Your task to perform on an android device: Open wifi settings Image 0: 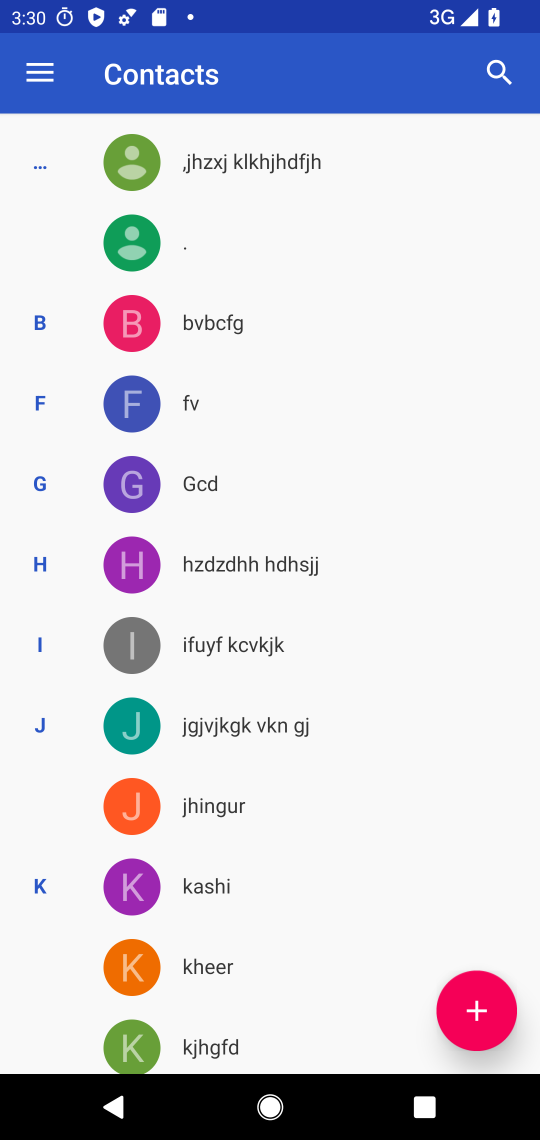
Step 0: press home button
Your task to perform on an android device: Open wifi settings Image 1: 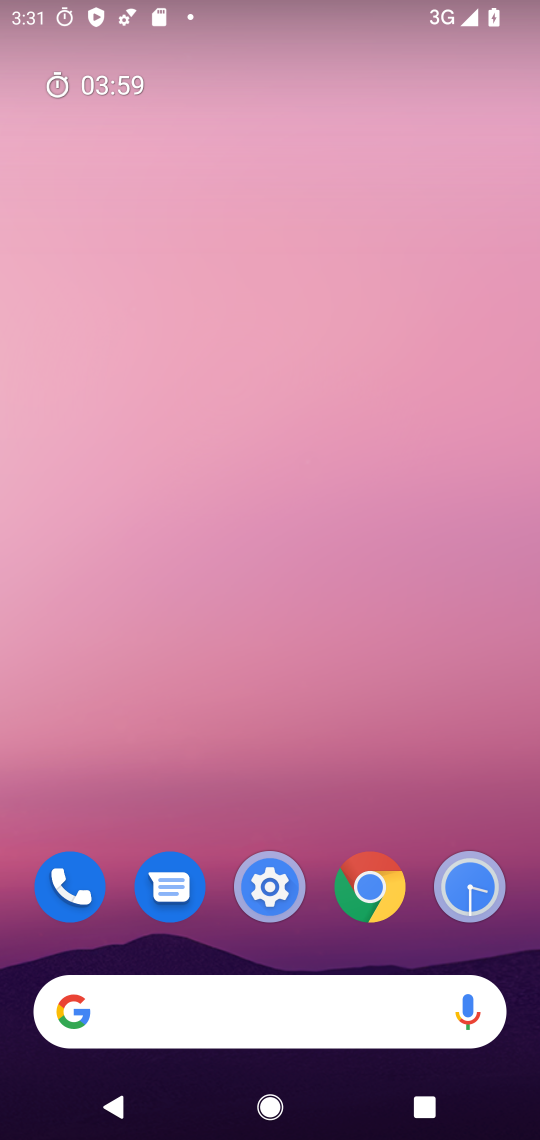
Step 1: drag from (397, 650) to (412, 197)
Your task to perform on an android device: Open wifi settings Image 2: 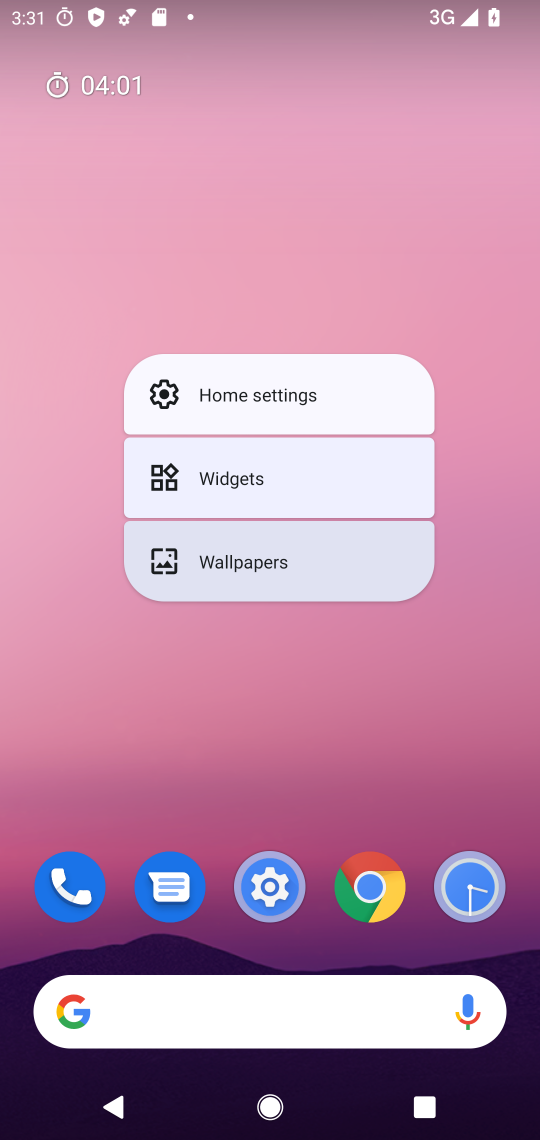
Step 2: click (417, 740)
Your task to perform on an android device: Open wifi settings Image 3: 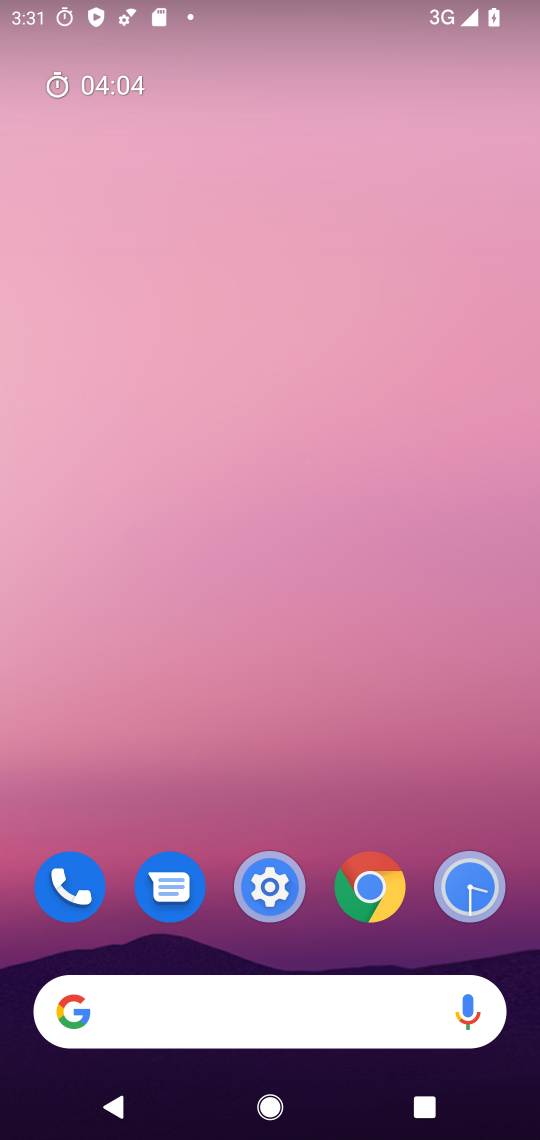
Step 3: drag from (413, 693) to (451, 159)
Your task to perform on an android device: Open wifi settings Image 4: 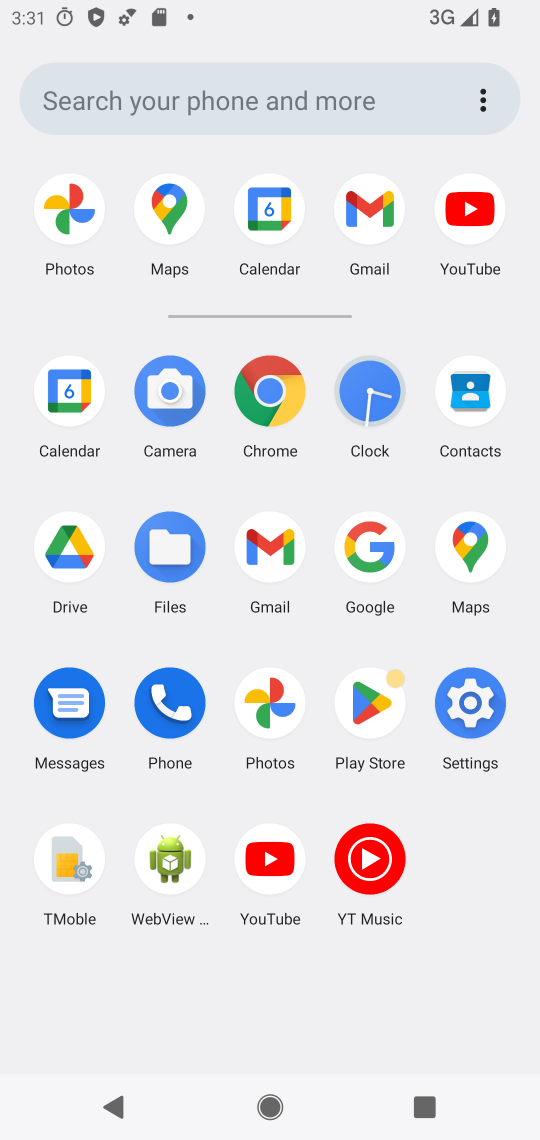
Step 4: click (470, 697)
Your task to perform on an android device: Open wifi settings Image 5: 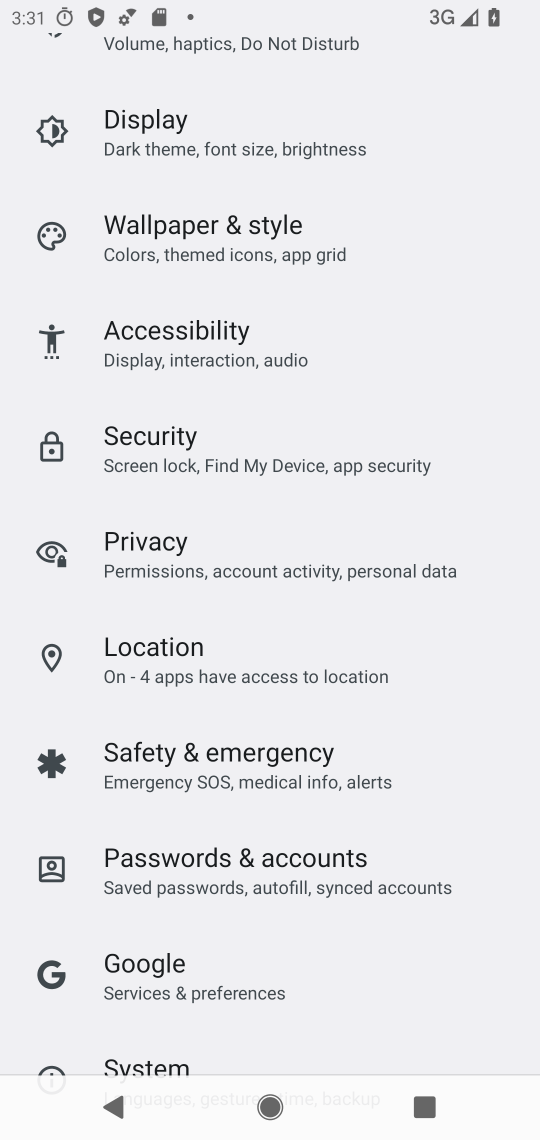
Step 5: drag from (459, 446) to (475, 667)
Your task to perform on an android device: Open wifi settings Image 6: 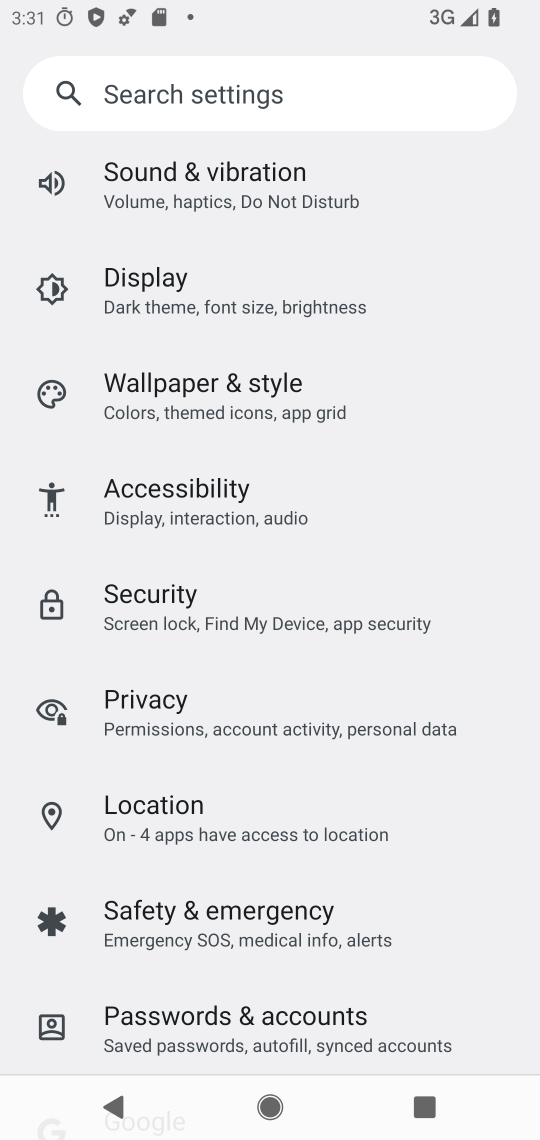
Step 6: drag from (453, 357) to (478, 656)
Your task to perform on an android device: Open wifi settings Image 7: 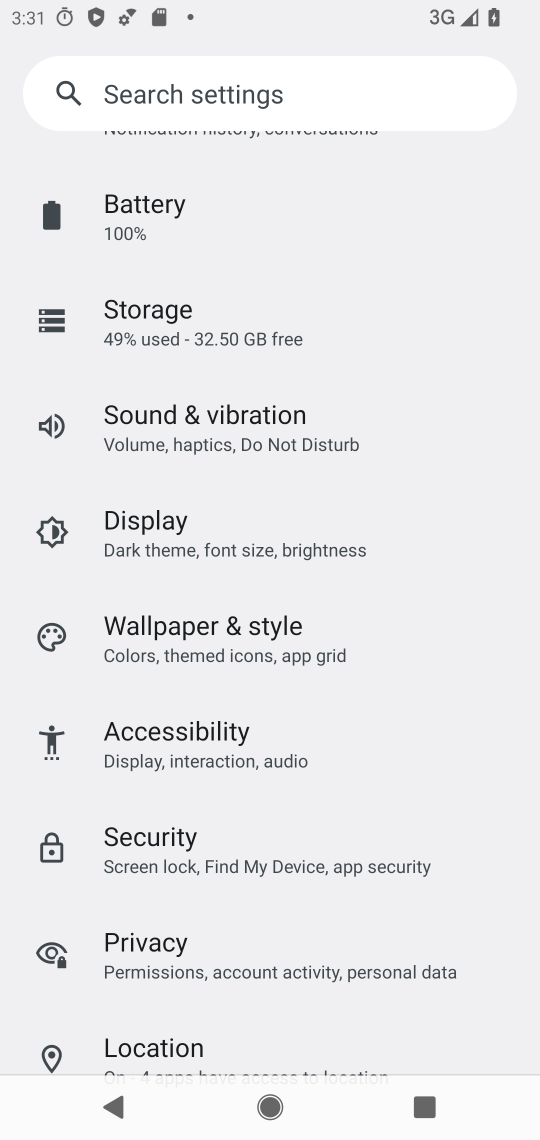
Step 7: drag from (473, 327) to (459, 648)
Your task to perform on an android device: Open wifi settings Image 8: 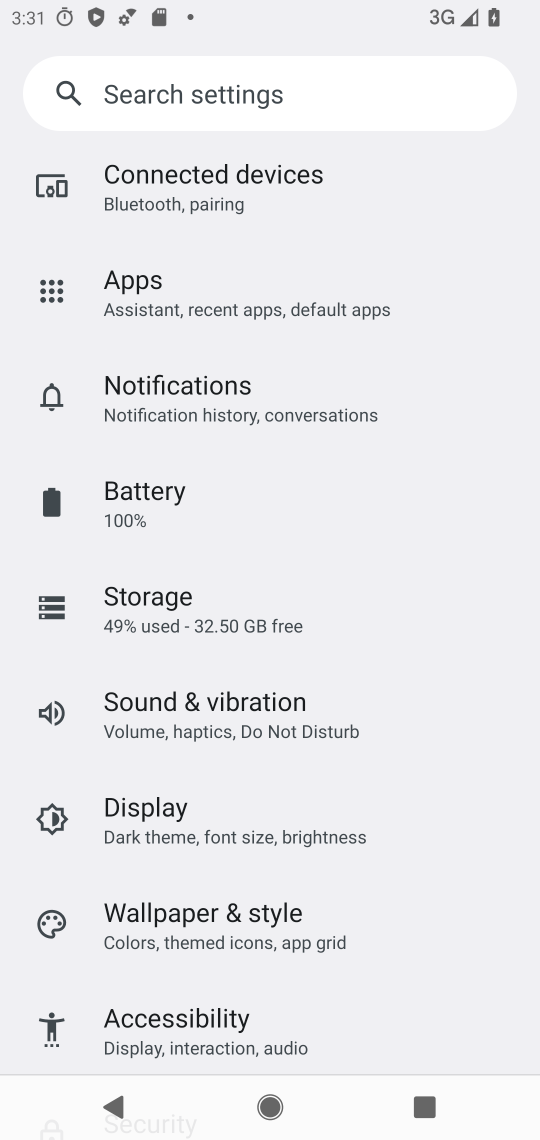
Step 8: drag from (449, 479) to (452, 717)
Your task to perform on an android device: Open wifi settings Image 9: 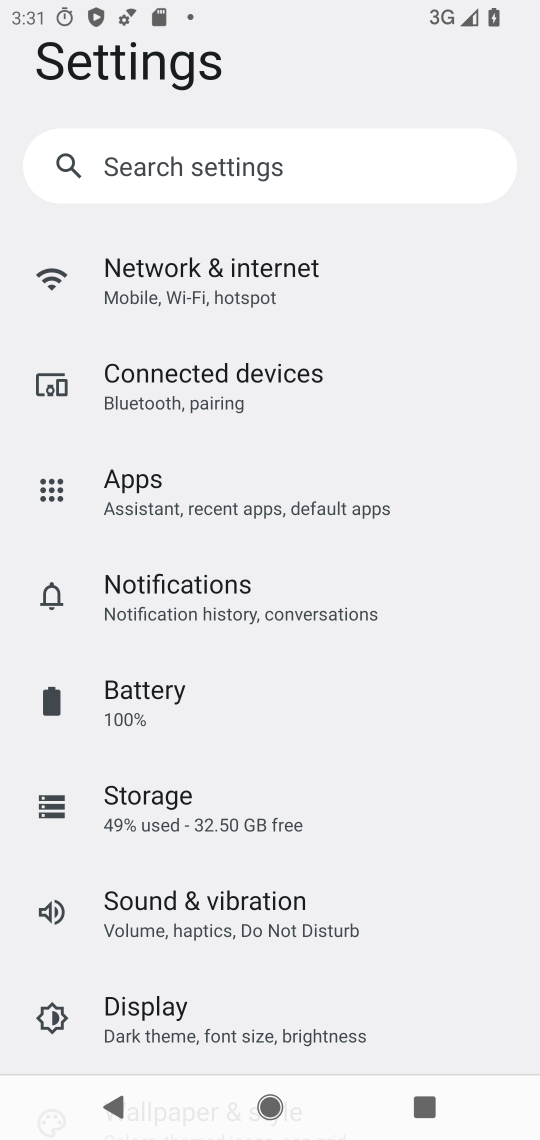
Step 9: drag from (431, 313) to (442, 704)
Your task to perform on an android device: Open wifi settings Image 10: 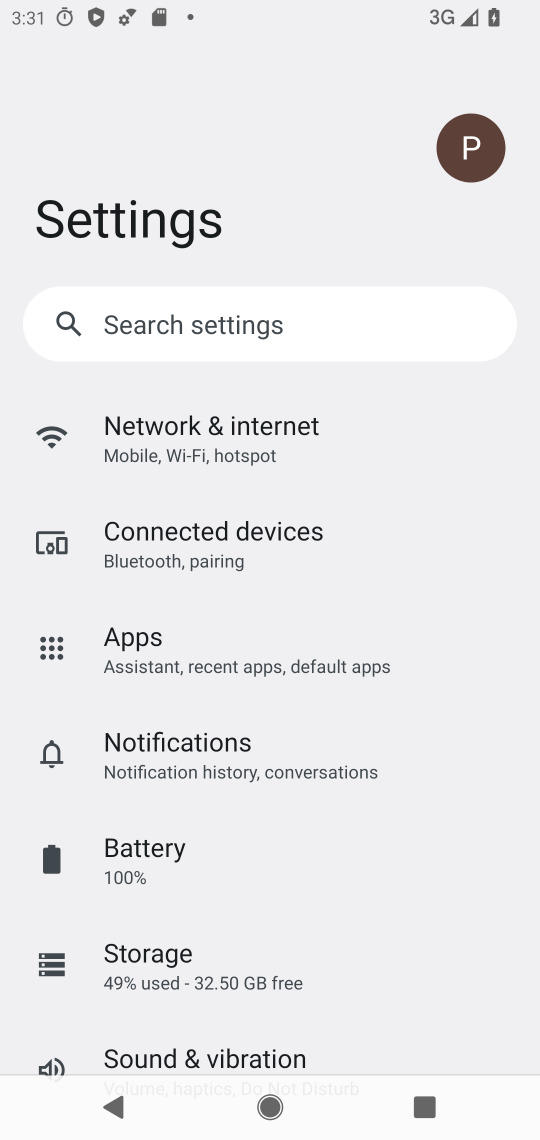
Step 10: click (319, 437)
Your task to perform on an android device: Open wifi settings Image 11: 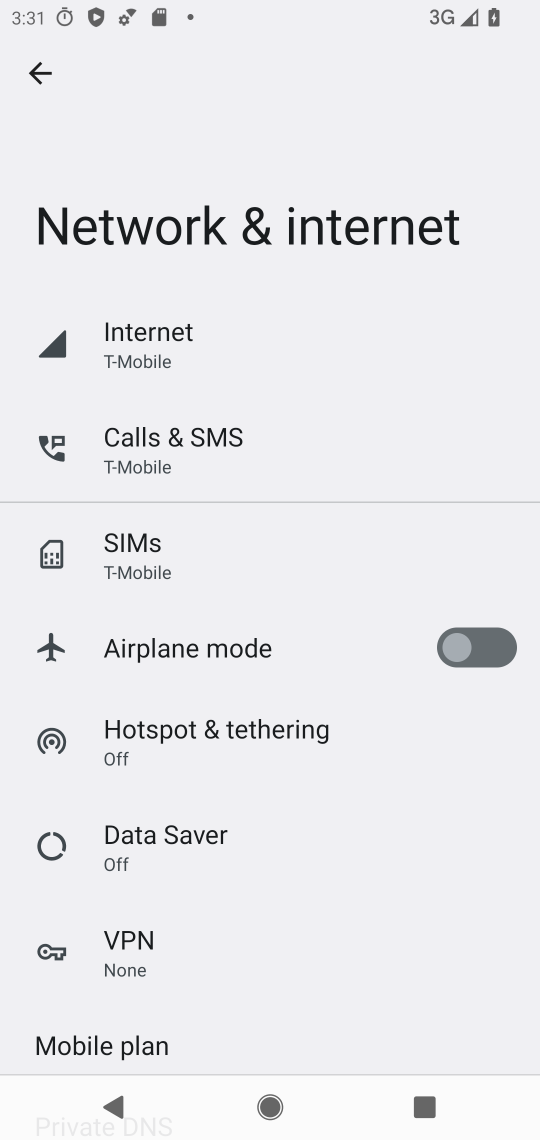
Step 11: drag from (338, 643) to (335, 512)
Your task to perform on an android device: Open wifi settings Image 12: 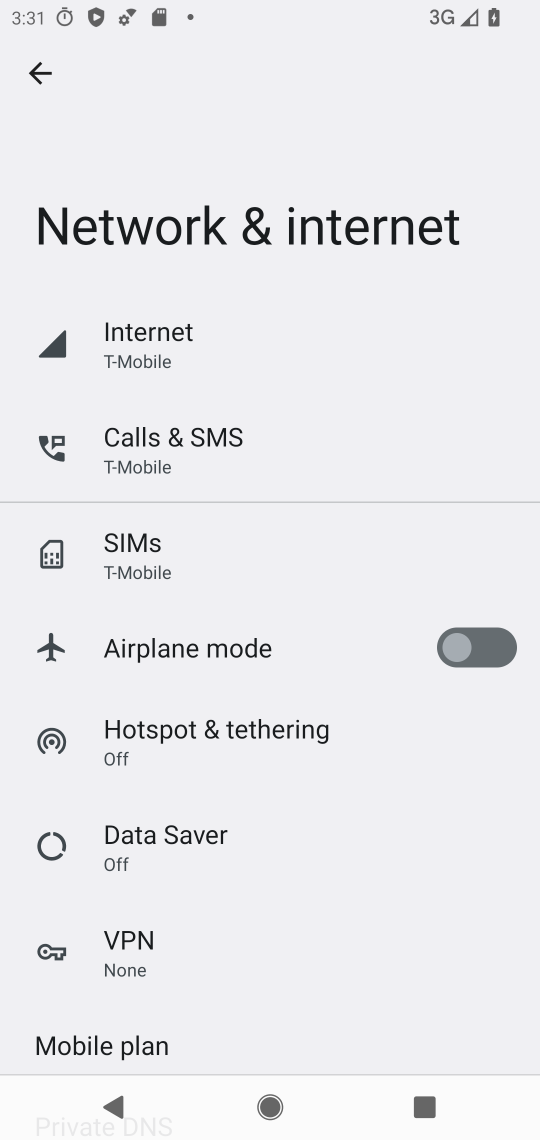
Step 12: click (158, 342)
Your task to perform on an android device: Open wifi settings Image 13: 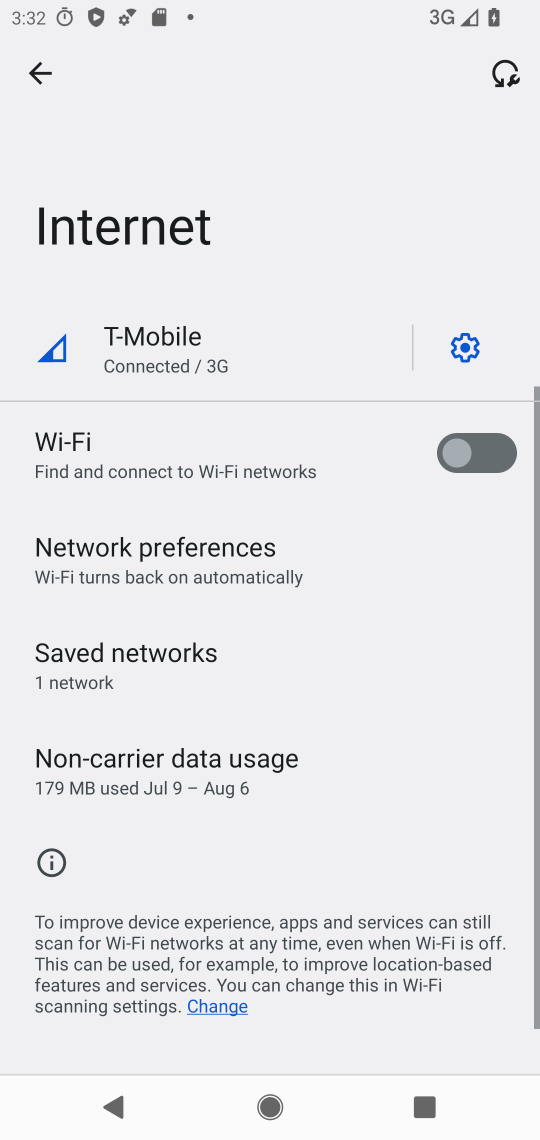
Step 13: task complete